Your task to perform on an android device: turn off sleep mode Image 0: 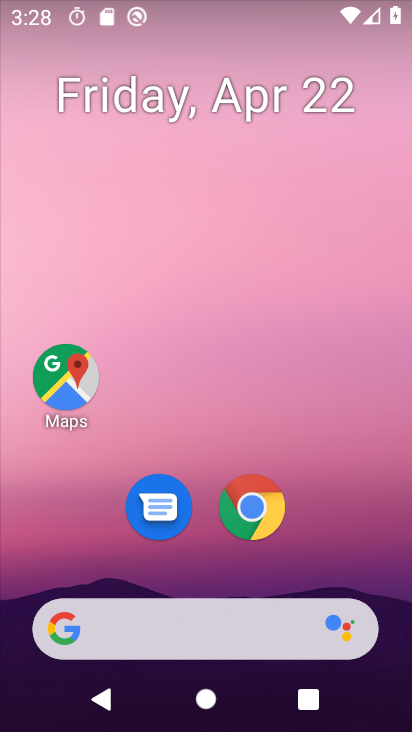
Step 0: drag from (368, 523) to (408, 32)
Your task to perform on an android device: turn off sleep mode Image 1: 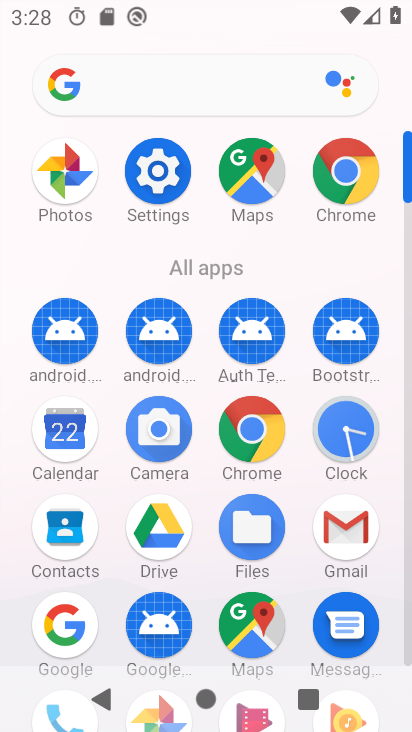
Step 1: click (158, 164)
Your task to perform on an android device: turn off sleep mode Image 2: 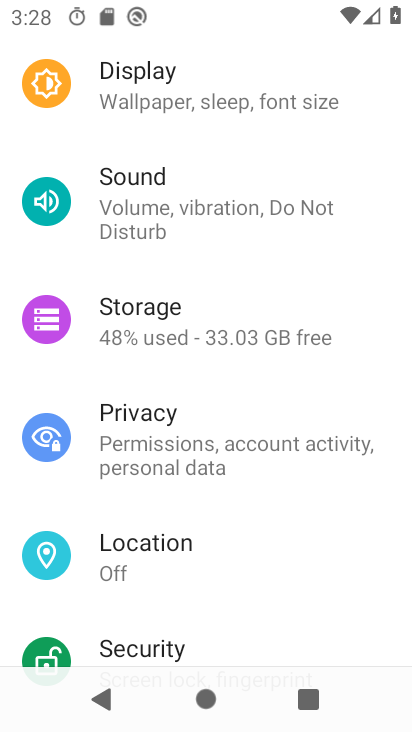
Step 2: drag from (190, 503) to (253, 177)
Your task to perform on an android device: turn off sleep mode Image 3: 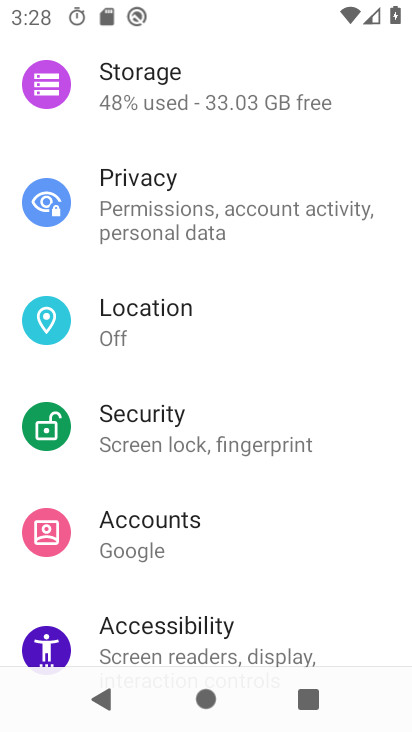
Step 3: drag from (245, 492) to (297, 239)
Your task to perform on an android device: turn off sleep mode Image 4: 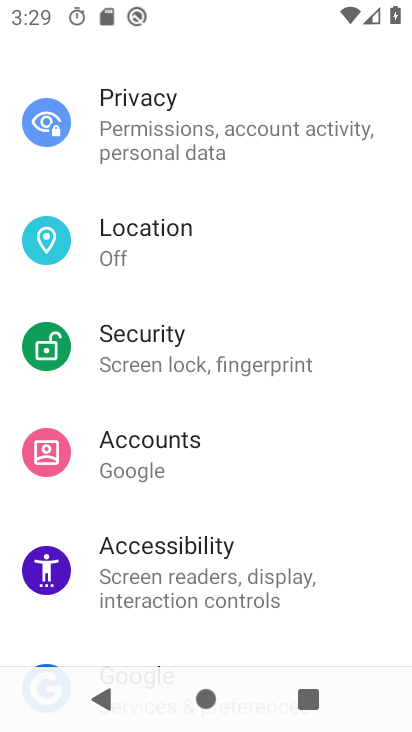
Step 4: drag from (256, 505) to (296, 131)
Your task to perform on an android device: turn off sleep mode Image 5: 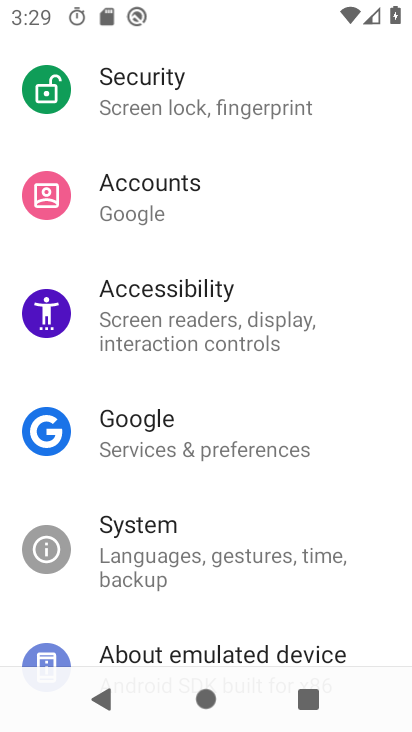
Step 5: drag from (235, 485) to (280, 186)
Your task to perform on an android device: turn off sleep mode Image 6: 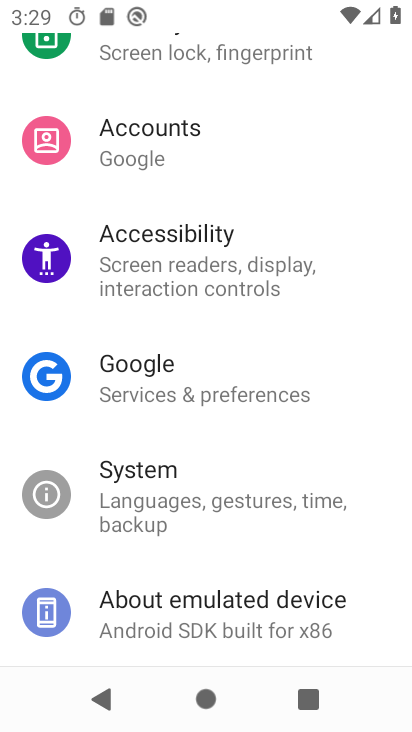
Step 6: drag from (256, 438) to (246, 164)
Your task to perform on an android device: turn off sleep mode Image 7: 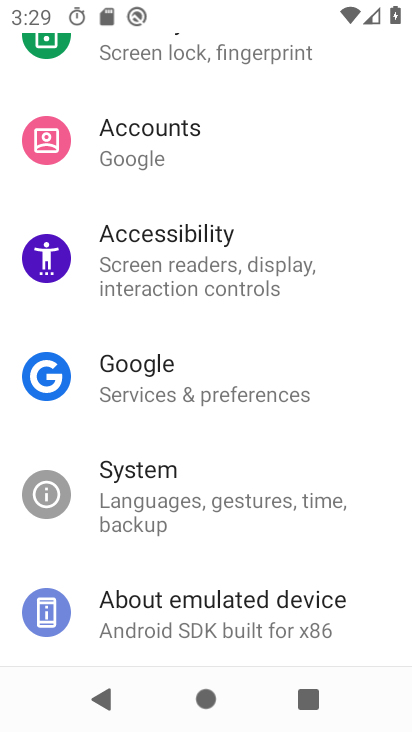
Step 7: drag from (262, 524) to (296, 186)
Your task to perform on an android device: turn off sleep mode Image 8: 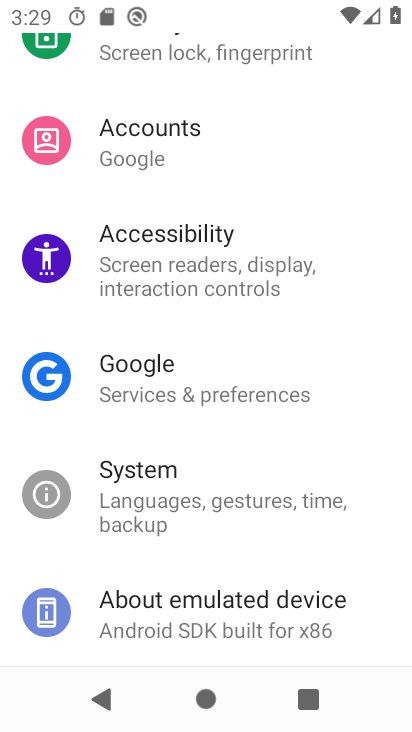
Step 8: drag from (296, 186) to (265, 522)
Your task to perform on an android device: turn off sleep mode Image 9: 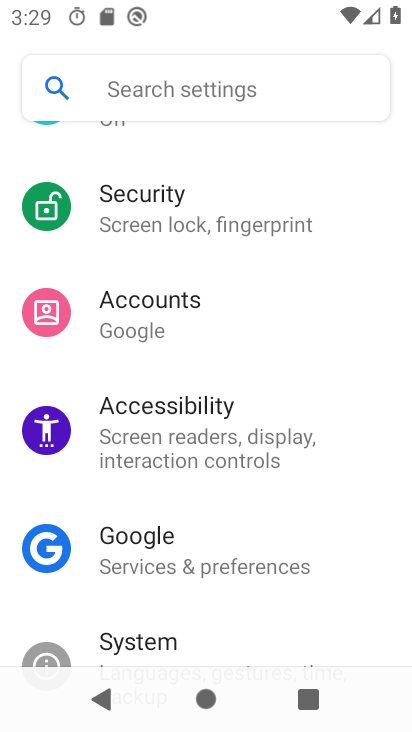
Step 9: drag from (248, 293) to (208, 582)
Your task to perform on an android device: turn off sleep mode Image 10: 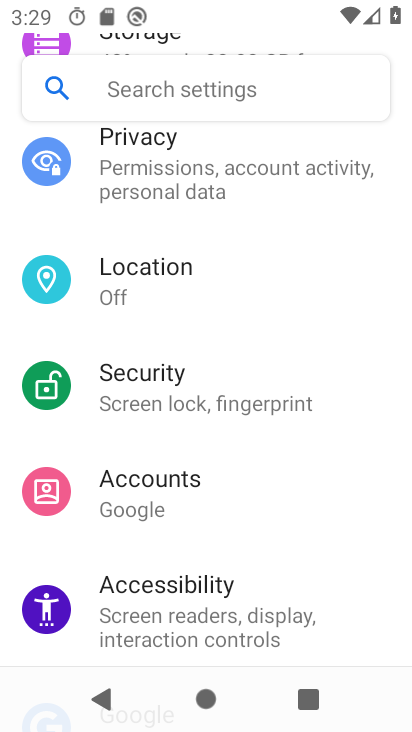
Step 10: drag from (220, 271) to (150, 563)
Your task to perform on an android device: turn off sleep mode Image 11: 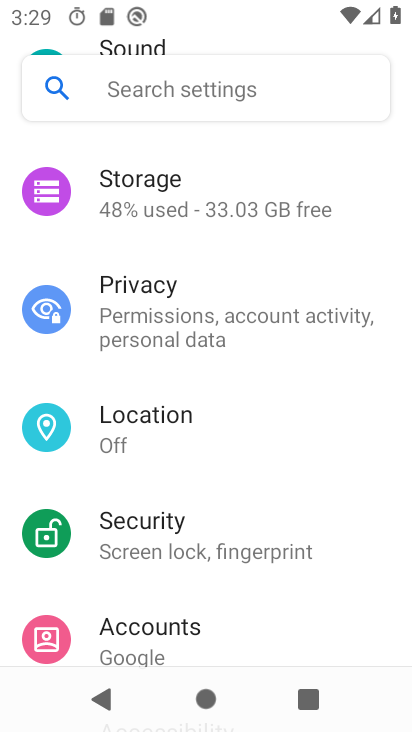
Step 11: drag from (180, 329) to (155, 584)
Your task to perform on an android device: turn off sleep mode Image 12: 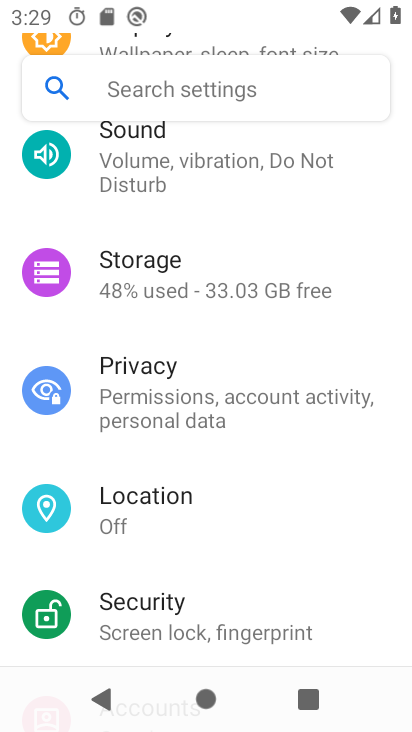
Step 12: drag from (205, 296) to (178, 623)
Your task to perform on an android device: turn off sleep mode Image 13: 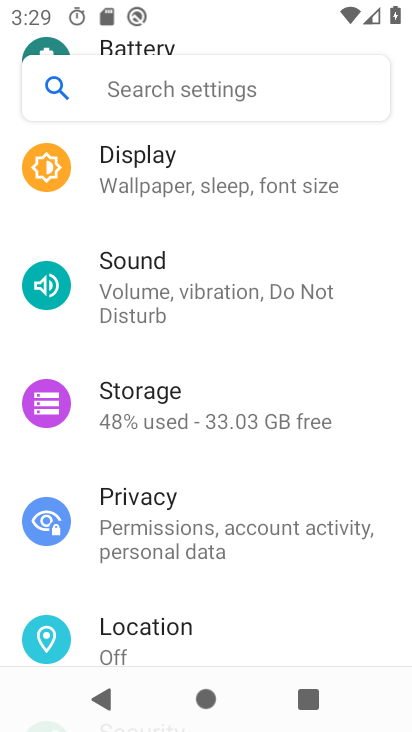
Step 13: click (173, 175)
Your task to perform on an android device: turn off sleep mode Image 14: 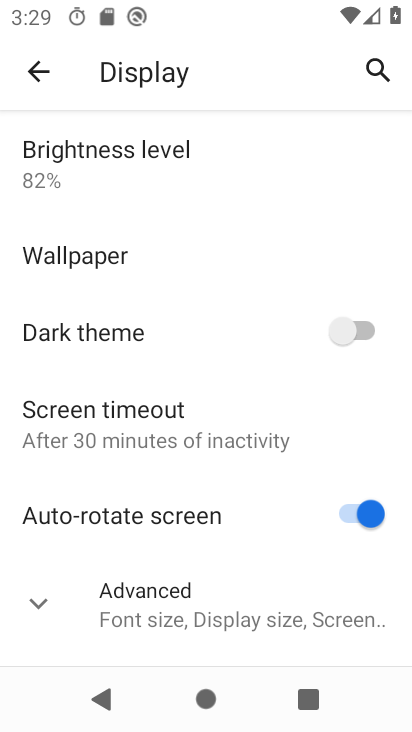
Step 14: drag from (184, 558) to (124, 185)
Your task to perform on an android device: turn off sleep mode Image 15: 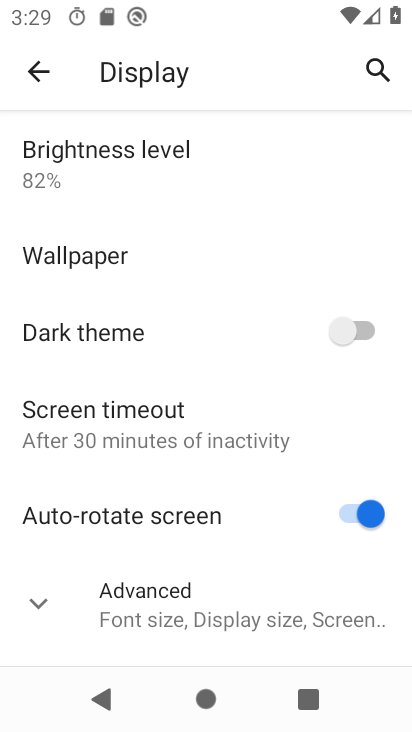
Step 15: click (97, 432)
Your task to perform on an android device: turn off sleep mode Image 16: 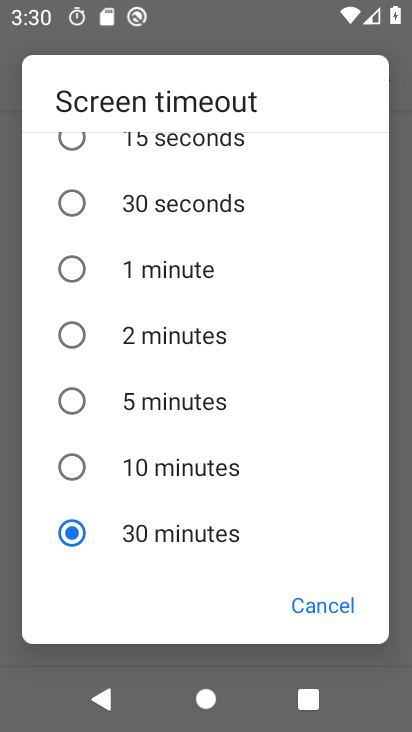
Step 16: task complete